Your task to perform on an android device: install app "Walmart Shopping & Grocery" Image 0: 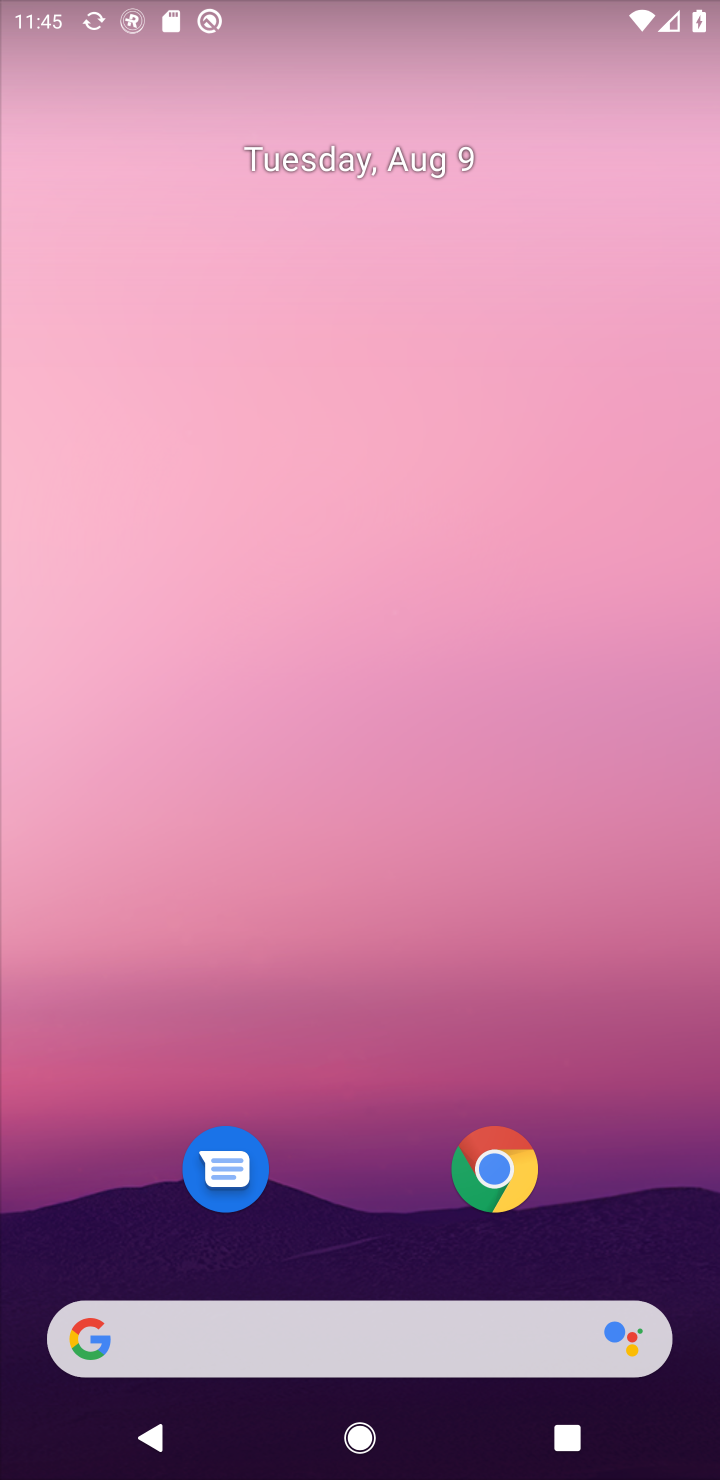
Step 0: press home button
Your task to perform on an android device: install app "Walmart Shopping & Grocery" Image 1: 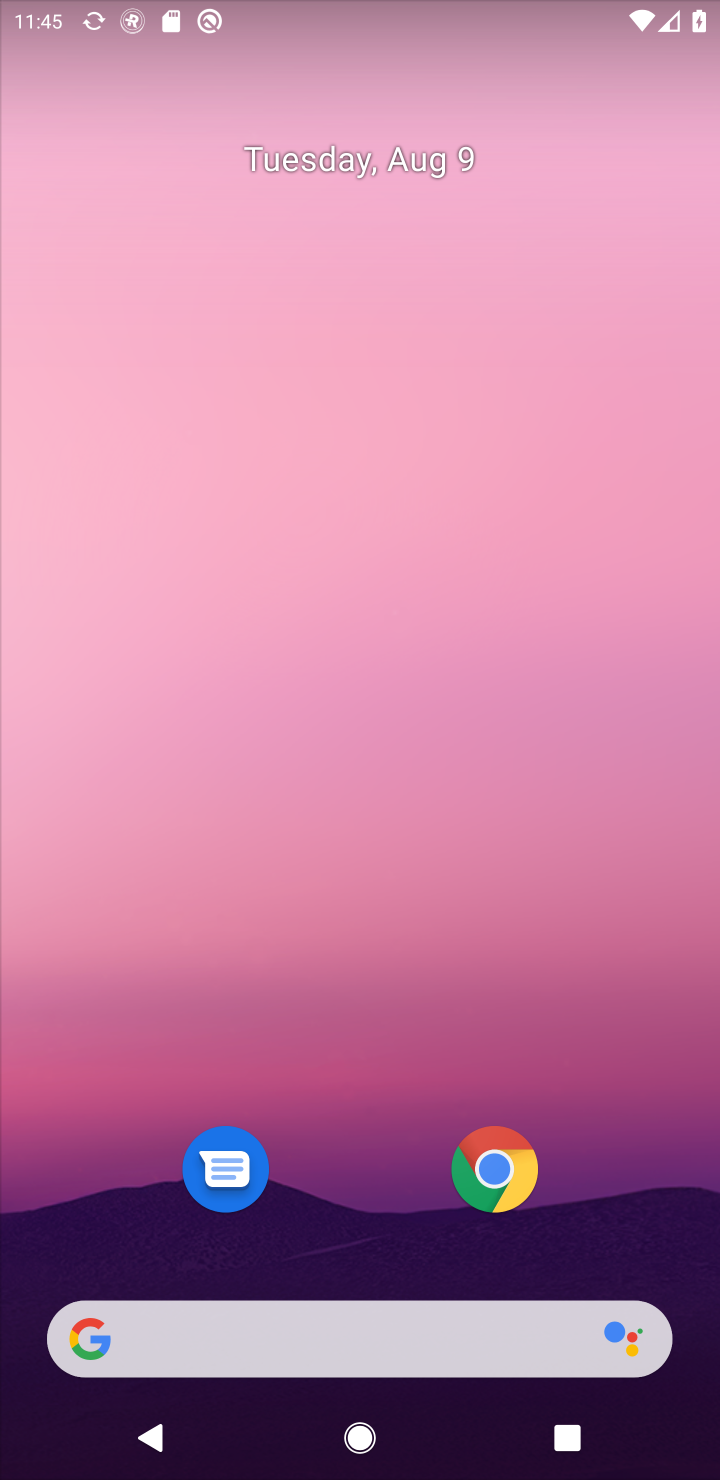
Step 1: drag from (598, 873) to (582, 163)
Your task to perform on an android device: install app "Walmart Shopping & Grocery" Image 2: 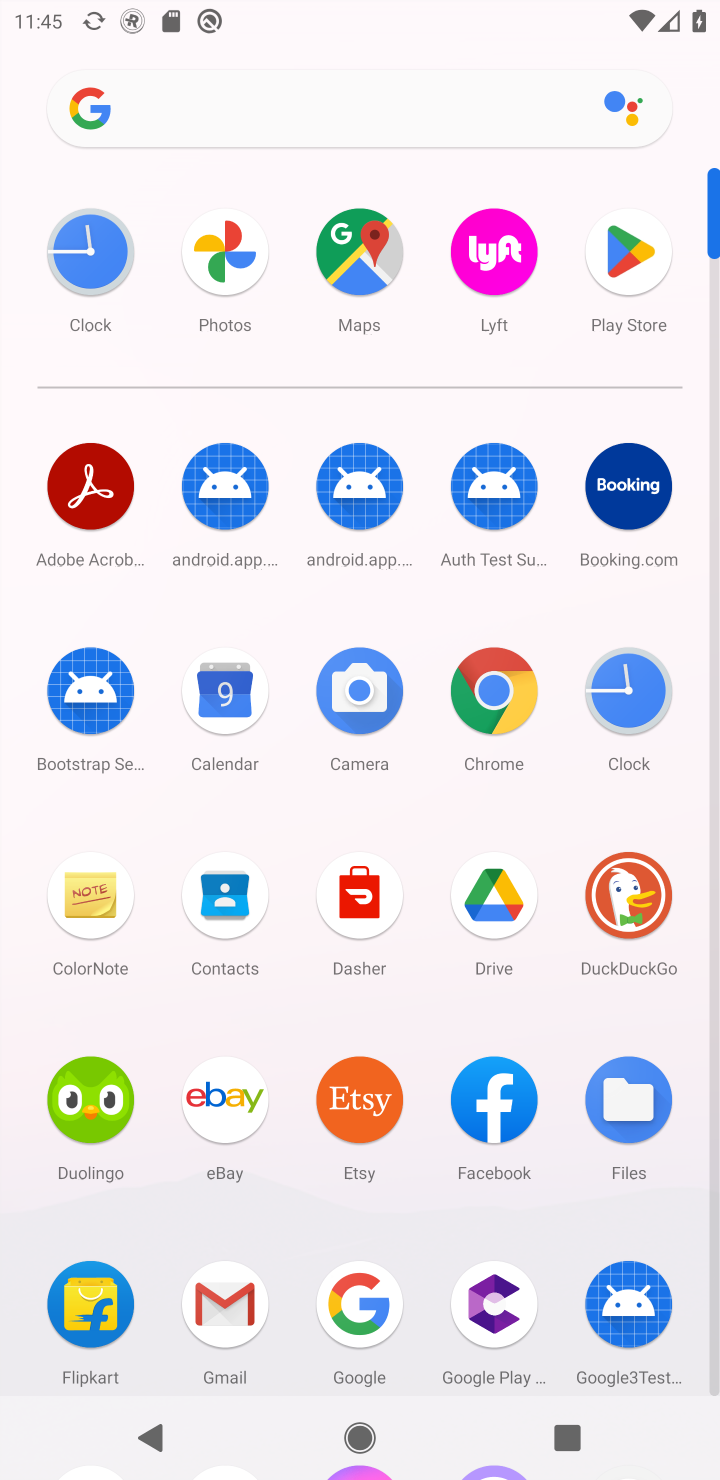
Step 2: click (640, 242)
Your task to perform on an android device: install app "Walmart Shopping & Grocery" Image 3: 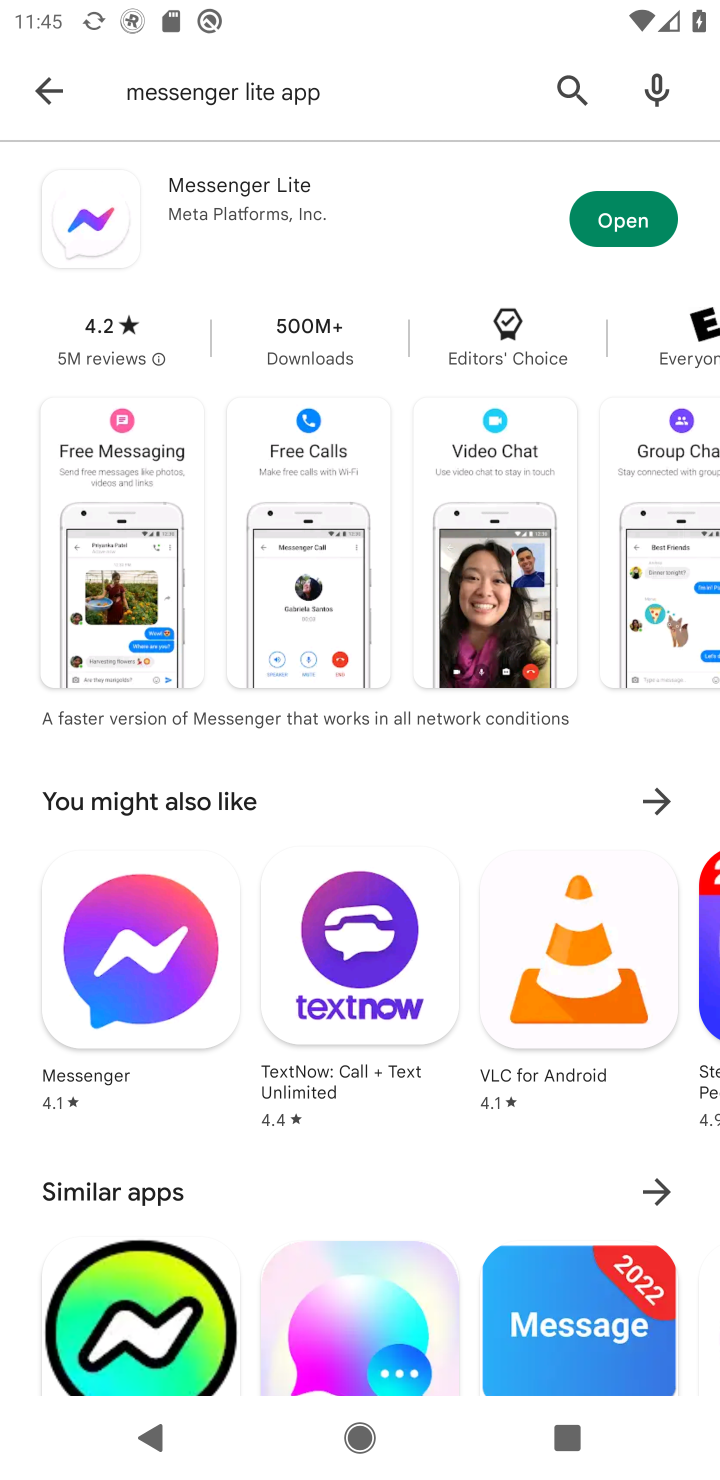
Step 3: click (570, 81)
Your task to perform on an android device: install app "Walmart Shopping & Grocery" Image 4: 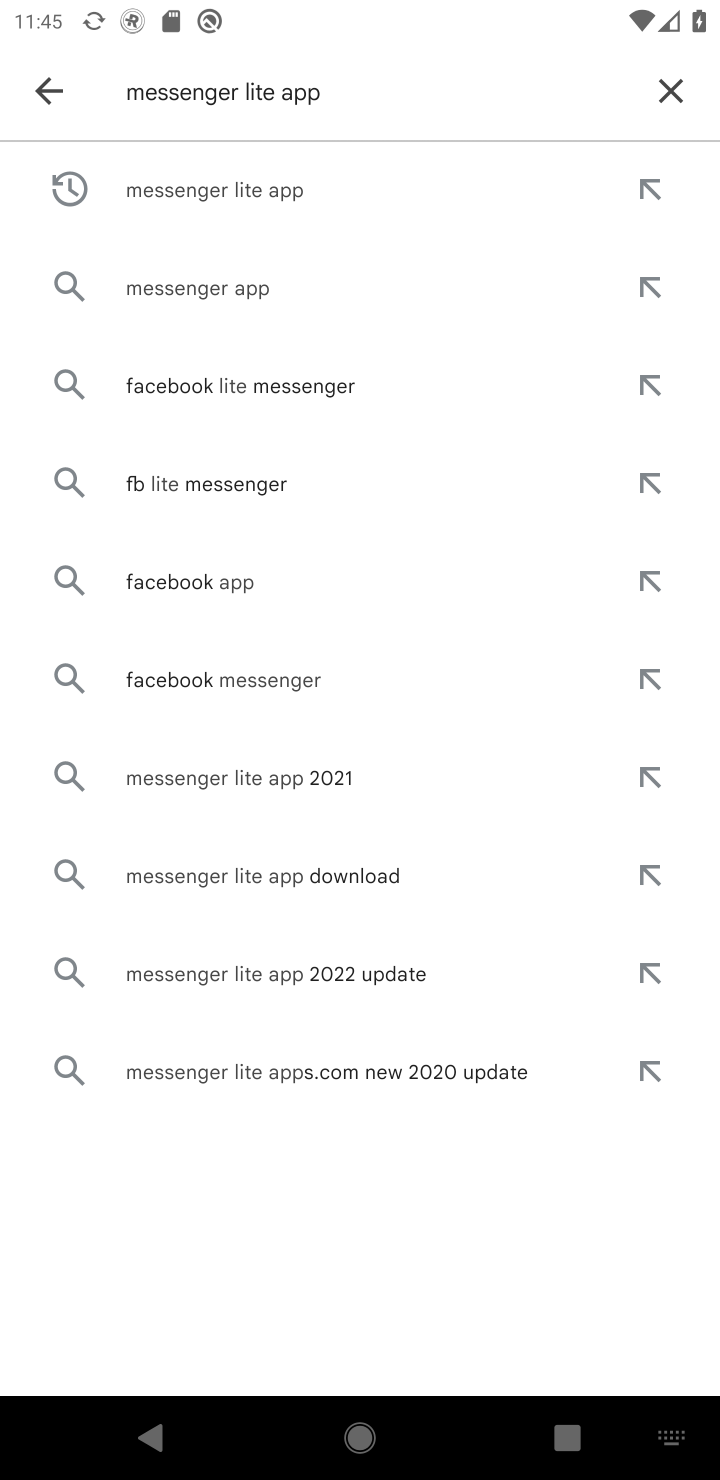
Step 4: click (663, 91)
Your task to perform on an android device: install app "Walmart Shopping & Grocery" Image 5: 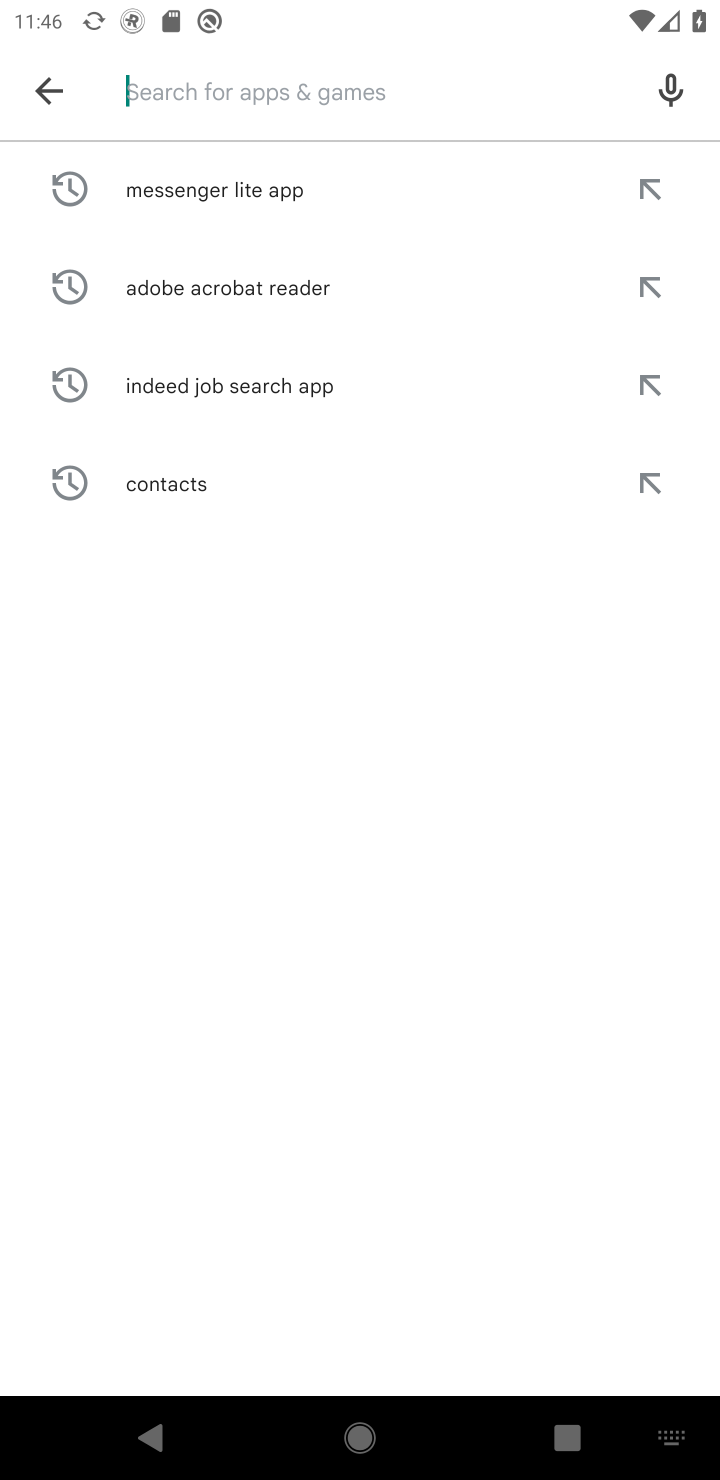
Step 5: press enter
Your task to perform on an android device: install app "Walmart Shopping & Grocery" Image 6: 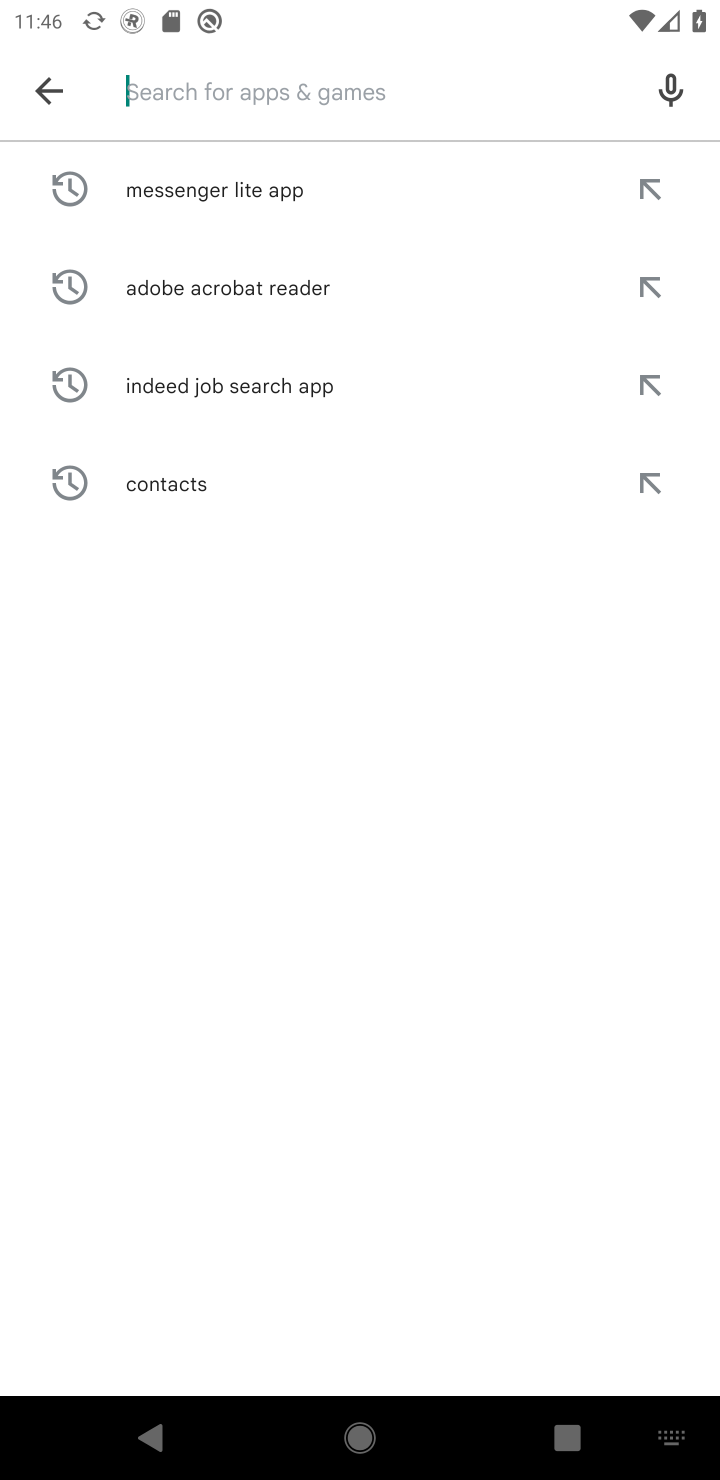
Step 6: type "Walmart Shopping & Grocery"
Your task to perform on an android device: install app "Walmart Shopping & Grocery" Image 7: 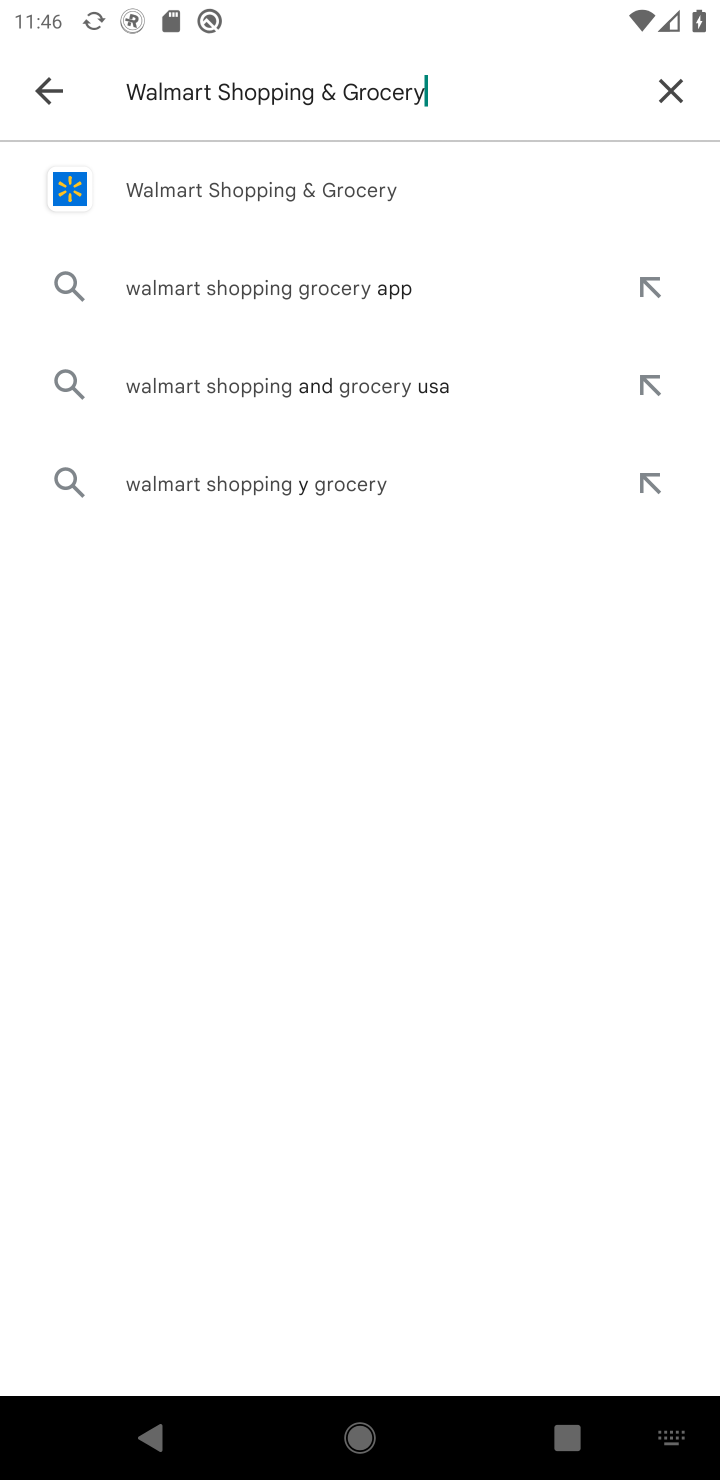
Step 7: click (348, 187)
Your task to perform on an android device: install app "Walmart Shopping & Grocery" Image 8: 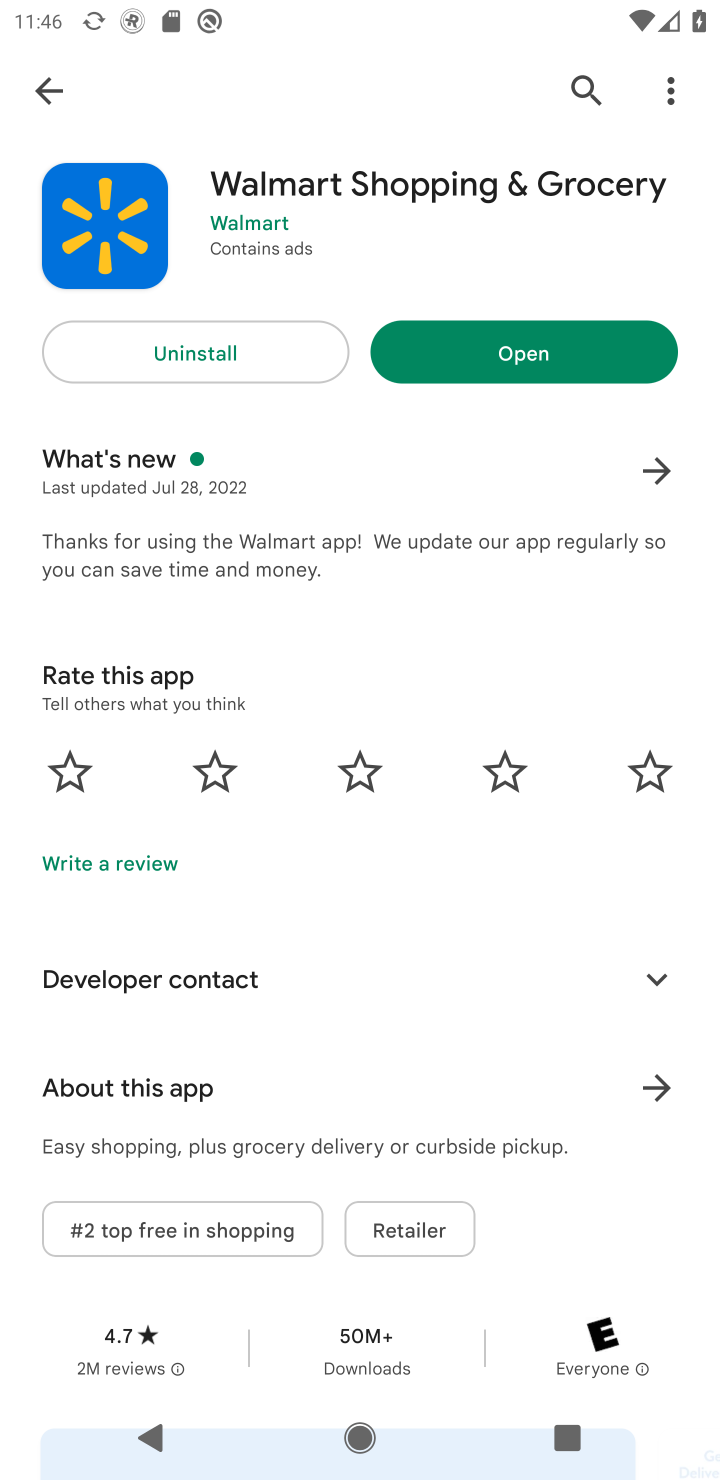
Step 8: task complete